Your task to perform on an android device: Open settings Image 0: 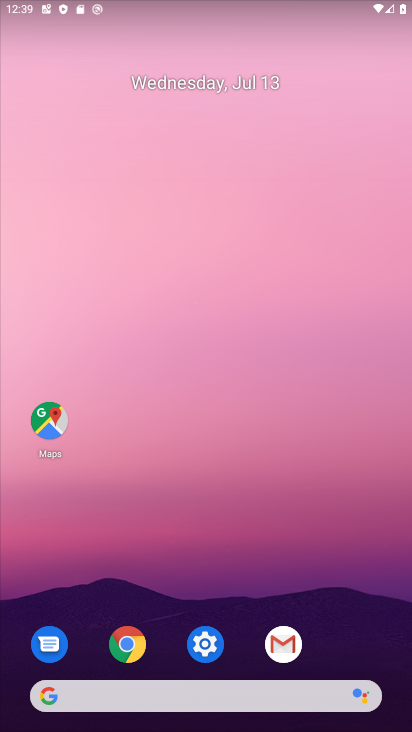
Step 0: click (204, 637)
Your task to perform on an android device: Open settings Image 1: 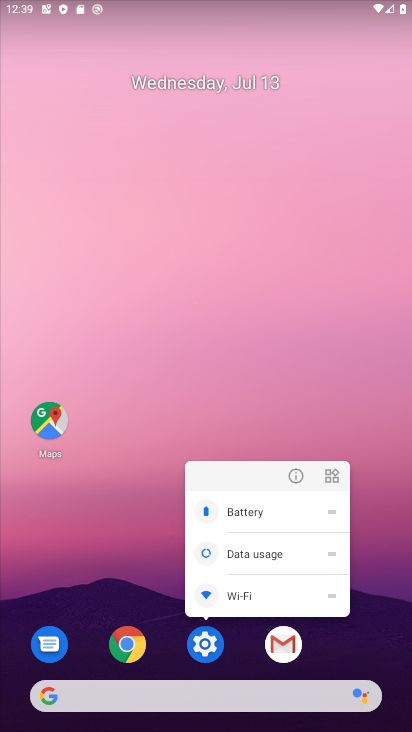
Step 1: click (206, 643)
Your task to perform on an android device: Open settings Image 2: 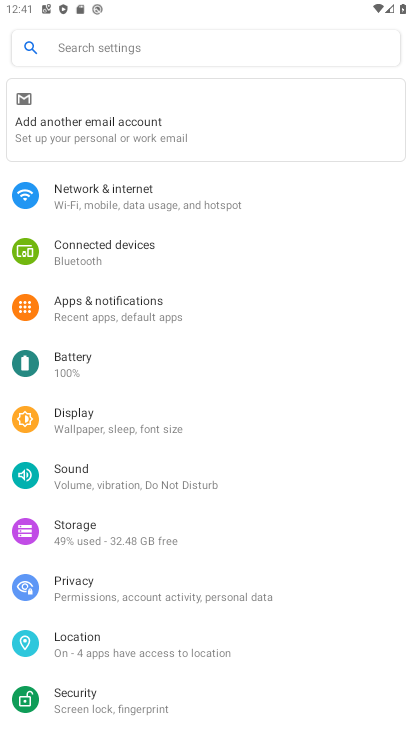
Step 2: task complete